Your task to perform on an android device: stop showing notifications on the lock screen Image 0: 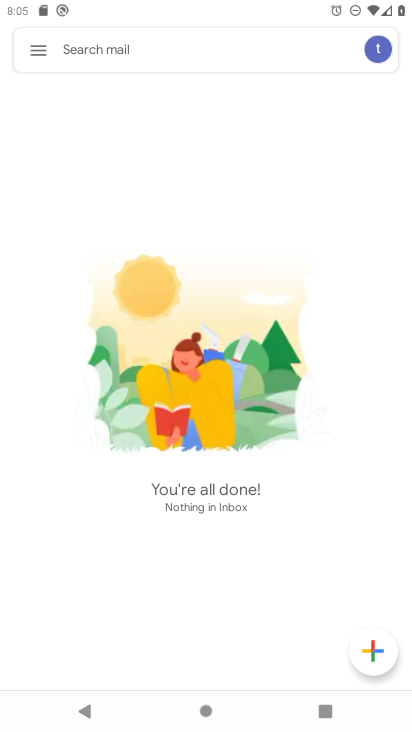
Step 0: press home button
Your task to perform on an android device: stop showing notifications on the lock screen Image 1: 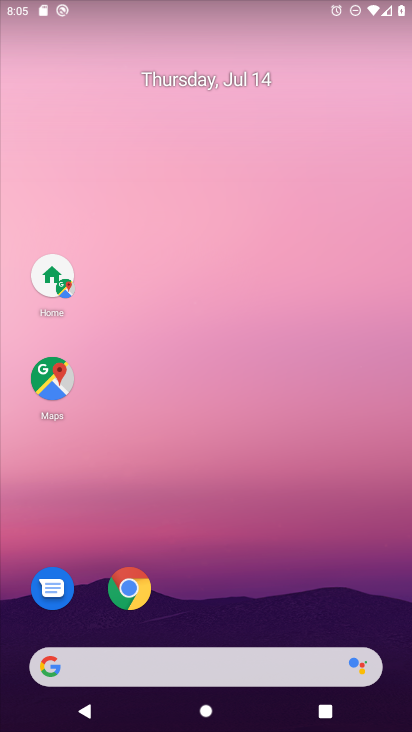
Step 1: drag from (129, 543) to (391, 44)
Your task to perform on an android device: stop showing notifications on the lock screen Image 2: 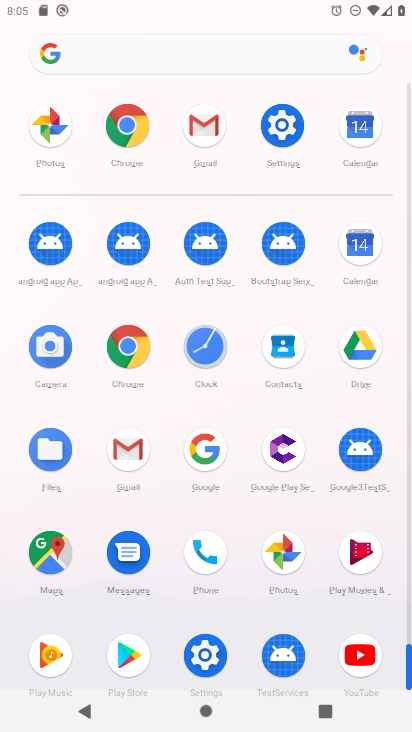
Step 2: click (224, 647)
Your task to perform on an android device: stop showing notifications on the lock screen Image 3: 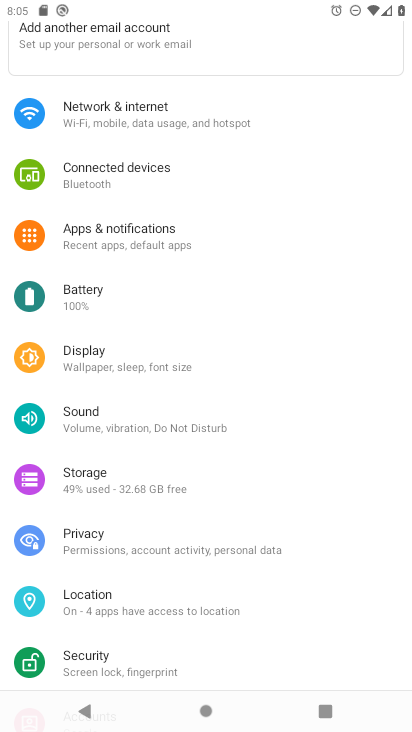
Step 3: click (153, 245)
Your task to perform on an android device: stop showing notifications on the lock screen Image 4: 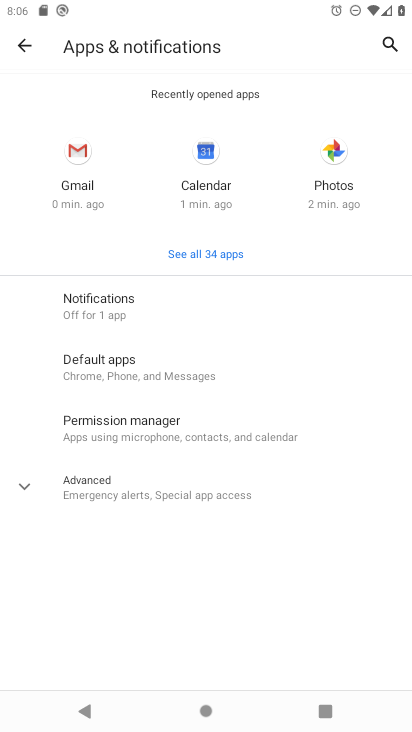
Step 4: click (118, 314)
Your task to perform on an android device: stop showing notifications on the lock screen Image 5: 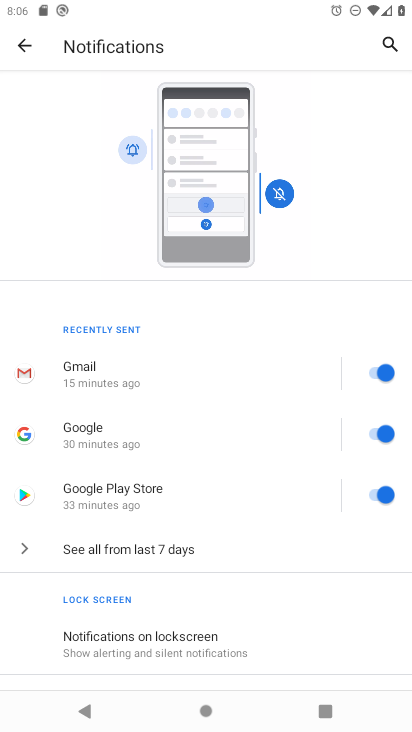
Step 5: click (212, 646)
Your task to perform on an android device: stop showing notifications on the lock screen Image 6: 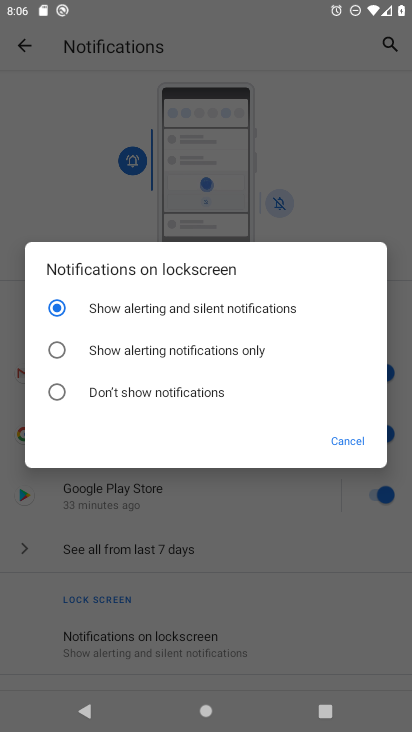
Step 6: click (64, 391)
Your task to perform on an android device: stop showing notifications on the lock screen Image 7: 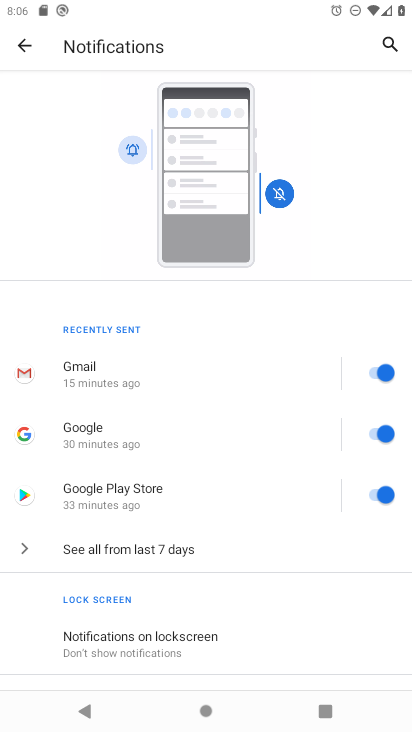
Step 7: task complete